Your task to perform on an android device: Open Google Chrome Image 0: 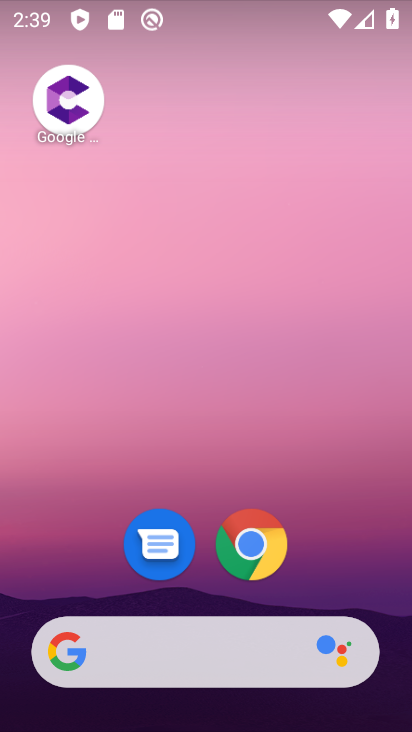
Step 0: drag from (333, 578) to (333, 123)
Your task to perform on an android device: Open Google Chrome Image 1: 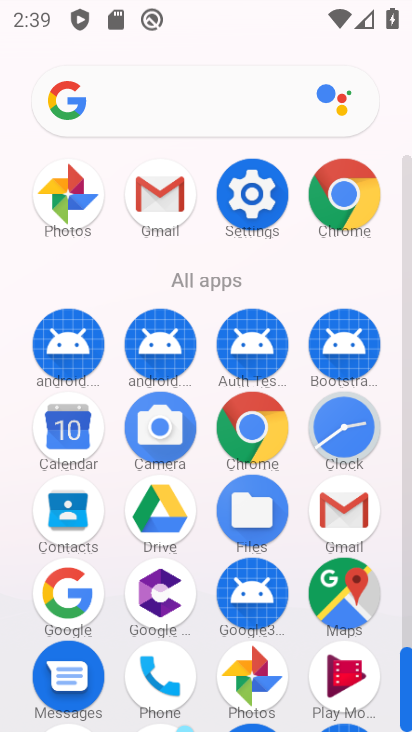
Step 1: click (254, 442)
Your task to perform on an android device: Open Google Chrome Image 2: 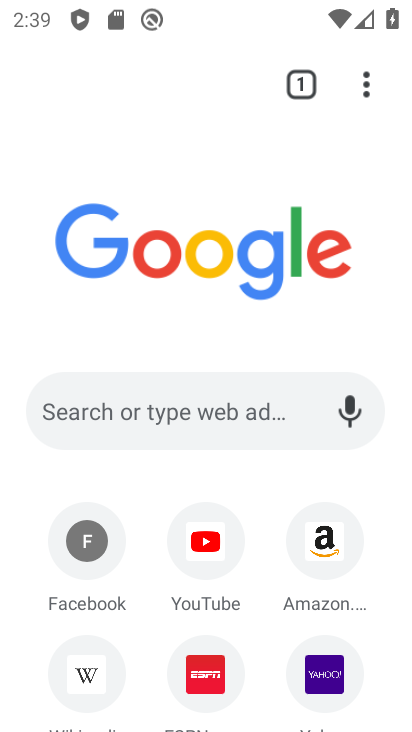
Step 2: task complete